Your task to perform on an android device: turn off picture-in-picture Image 0: 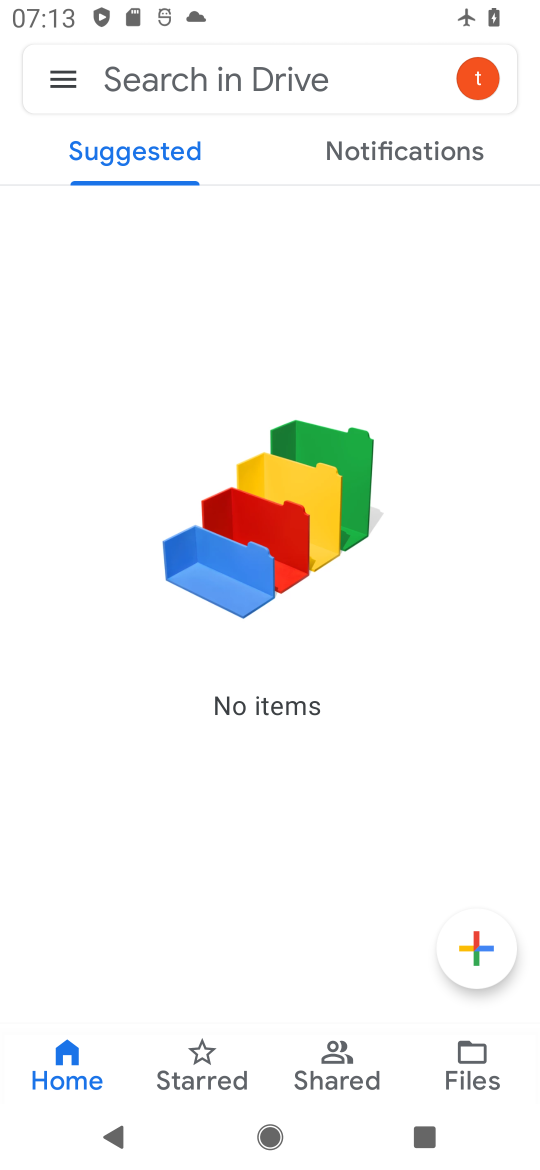
Step 0: press home button
Your task to perform on an android device: turn off picture-in-picture Image 1: 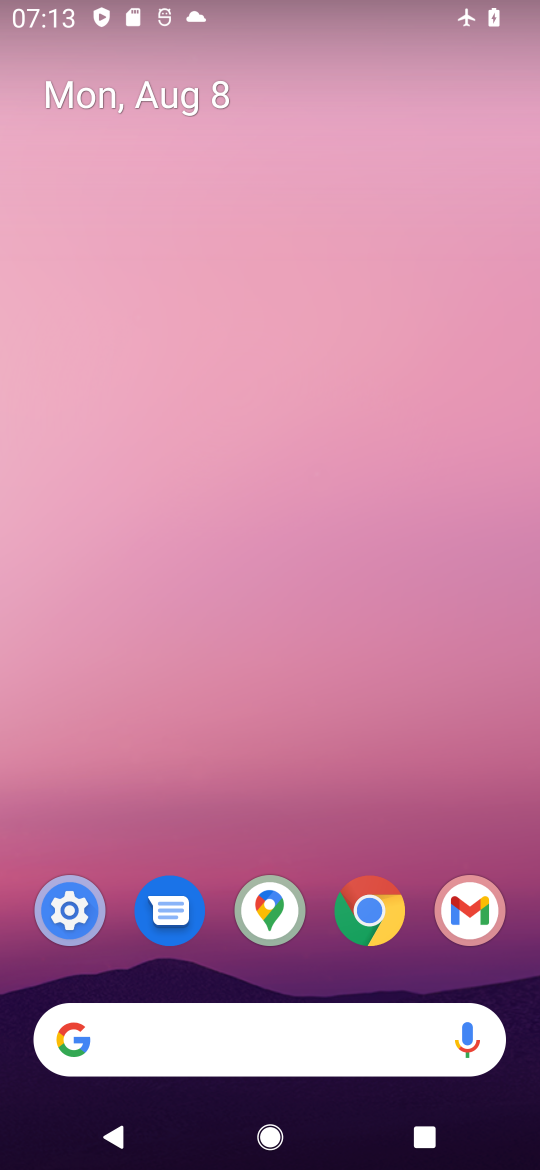
Step 1: click (369, 913)
Your task to perform on an android device: turn off picture-in-picture Image 2: 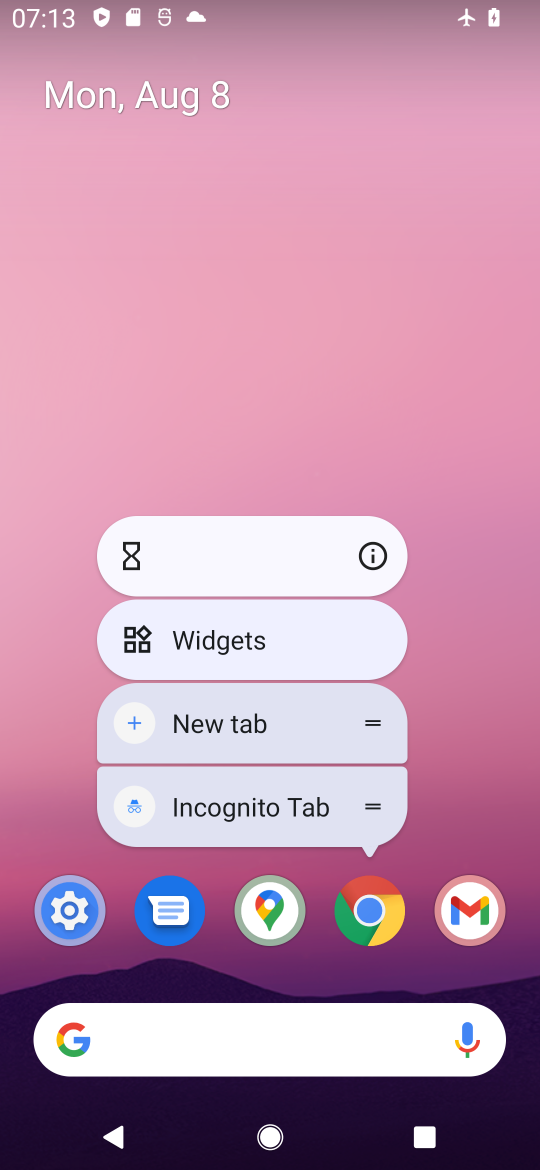
Step 2: click (367, 553)
Your task to perform on an android device: turn off picture-in-picture Image 3: 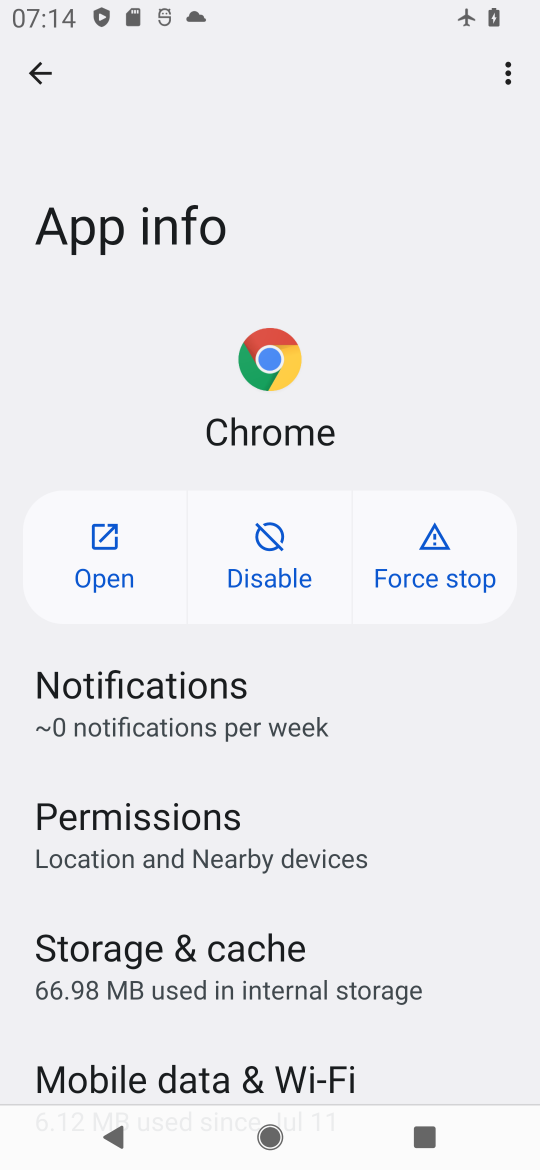
Step 3: drag from (228, 895) to (330, 736)
Your task to perform on an android device: turn off picture-in-picture Image 4: 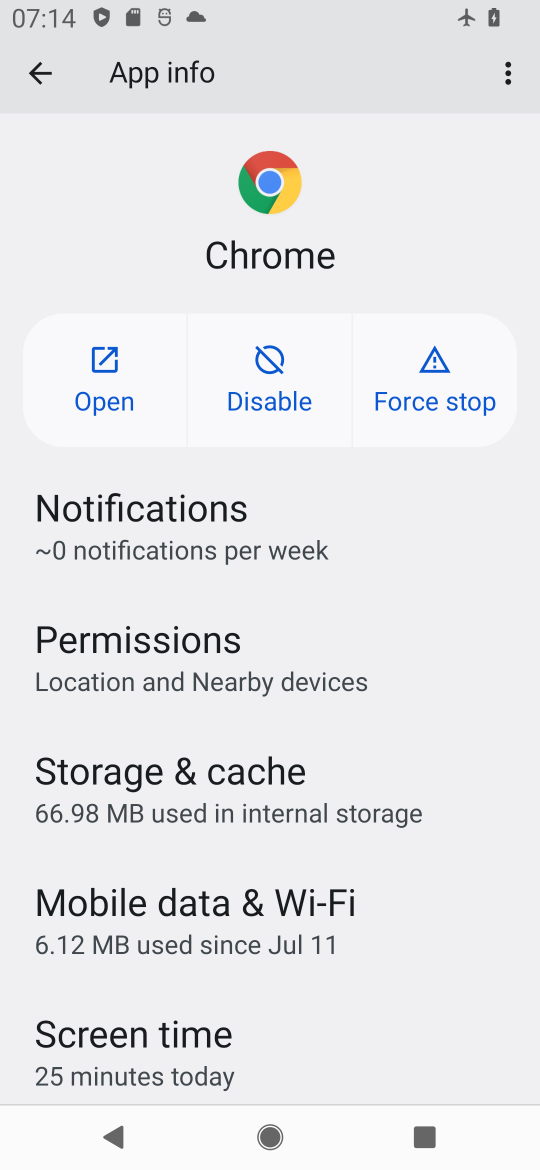
Step 4: drag from (205, 975) to (360, 791)
Your task to perform on an android device: turn off picture-in-picture Image 5: 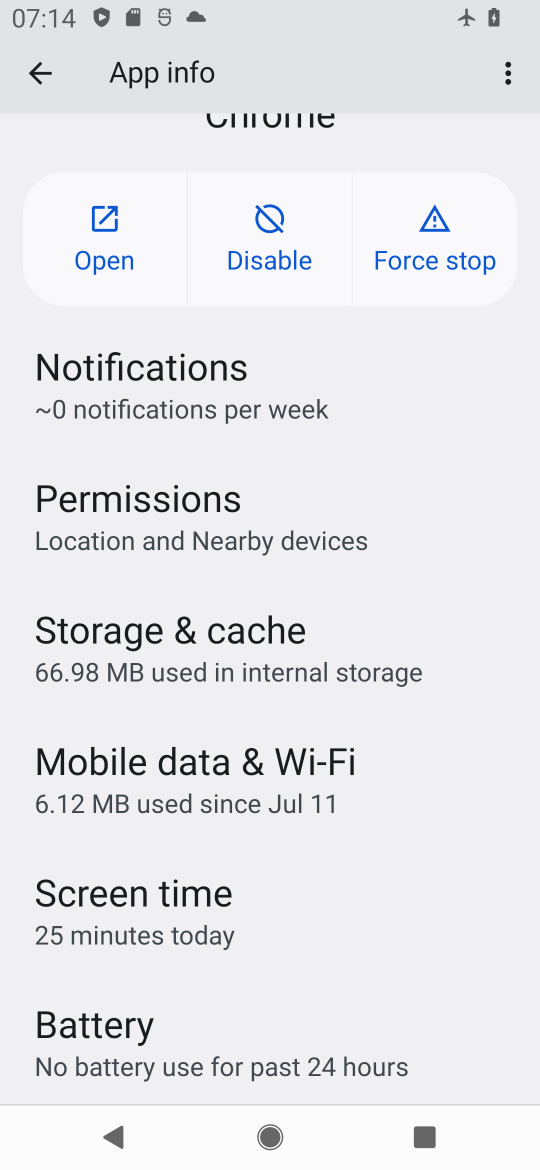
Step 5: drag from (245, 916) to (345, 707)
Your task to perform on an android device: turn off picture-in-picture Image 6: 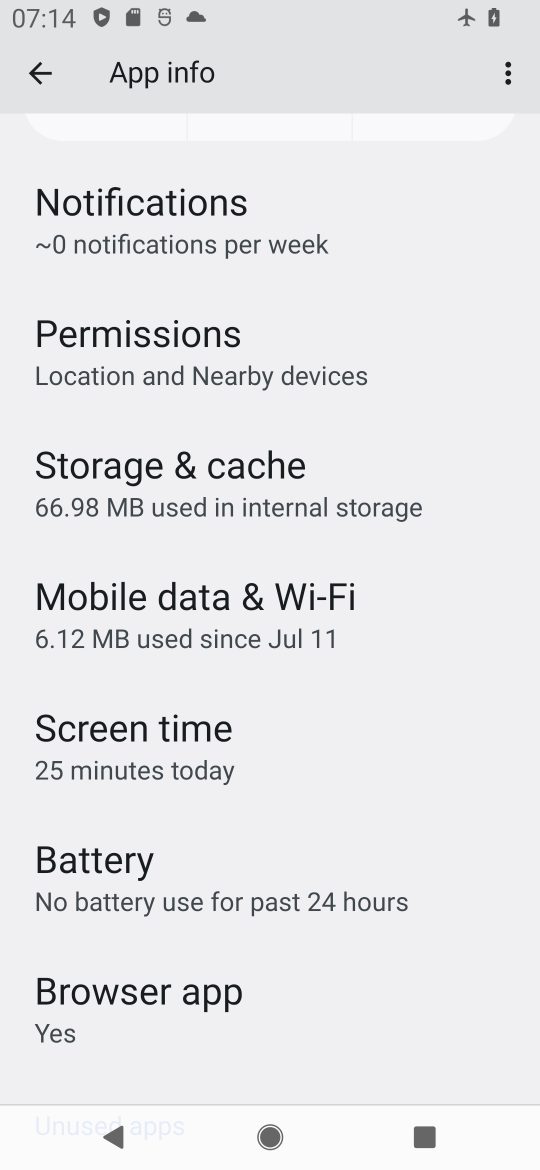
Step 6: drag from (253, 964) to (352, 814)
Your task to perform on an android device: turn off picture-in-picture Image 7: 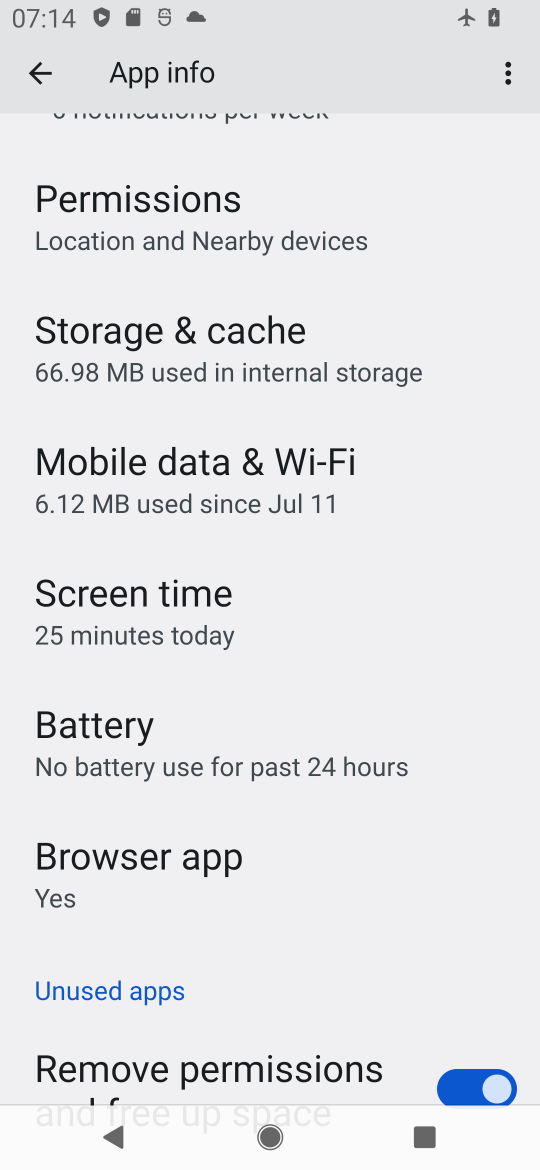
Step 7: drag from (247, 958) to (326, 715)
Your task to perform on an android device: turn off picture-in-picture Image 8: 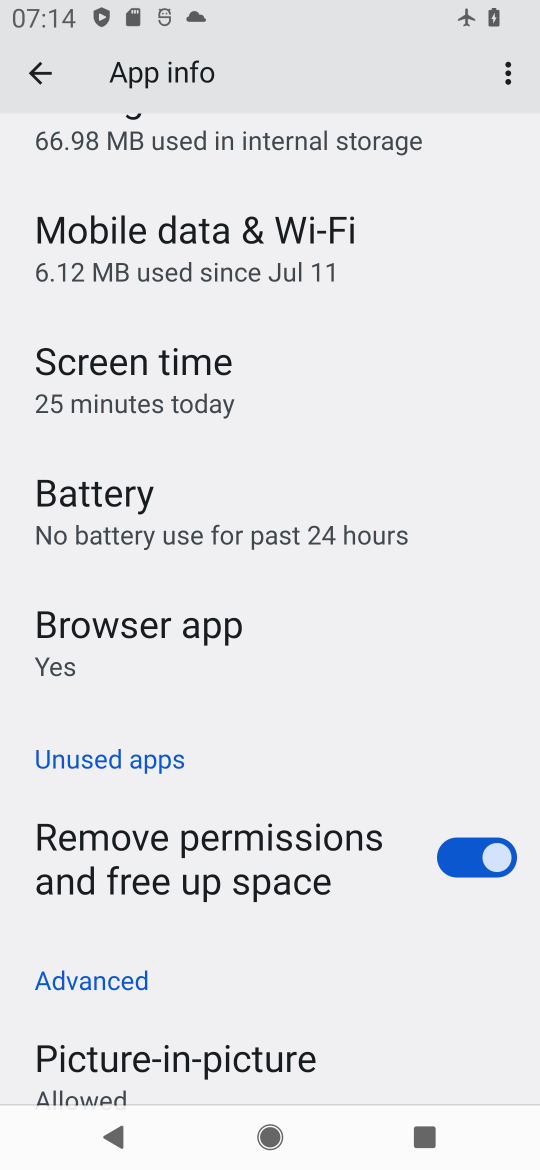
Step 8: drag from (226, 985) to (298, 711)
Your task to perform on an android device: turn off picture-in-picture Image 9: 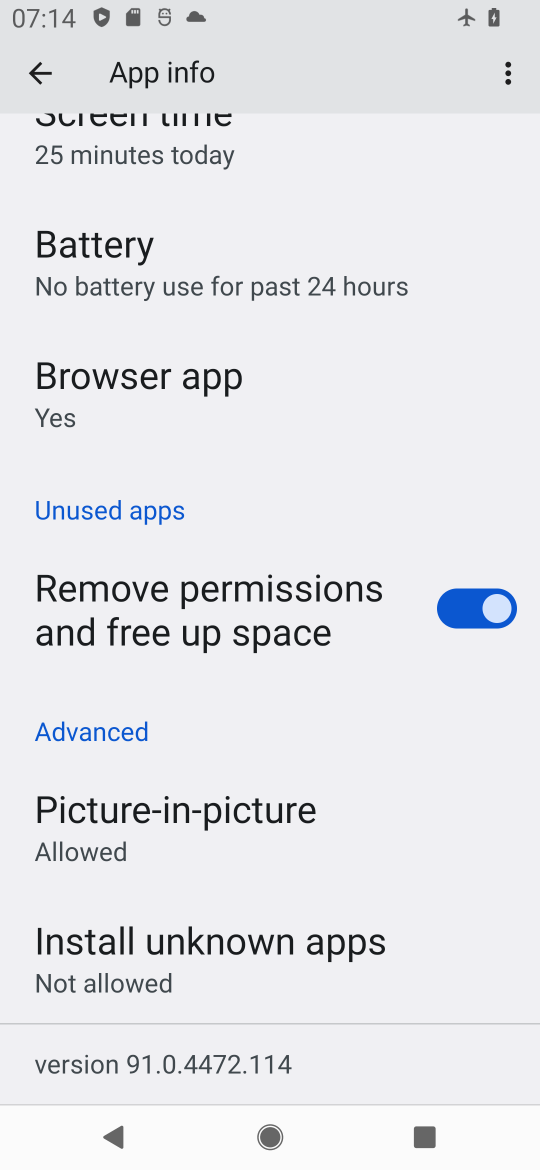
Step 9: click (236, 806)
Your task to perform on an android device: turn off picture-in-picture Image 10: 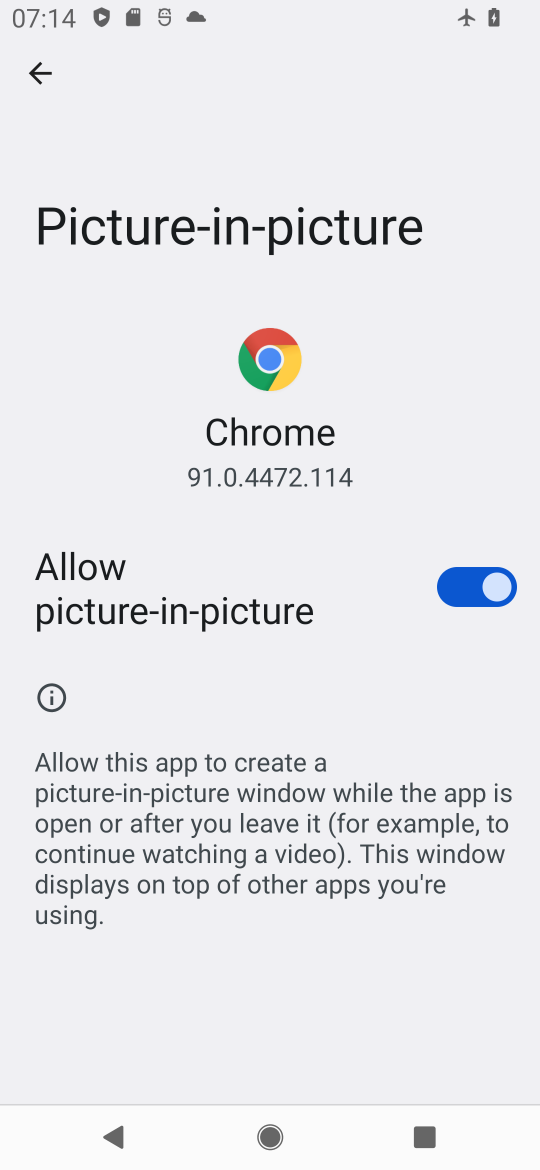
Step 10: click (448, 586)
Your task to perform on an android device: turn off picture-in-picture Image 11: 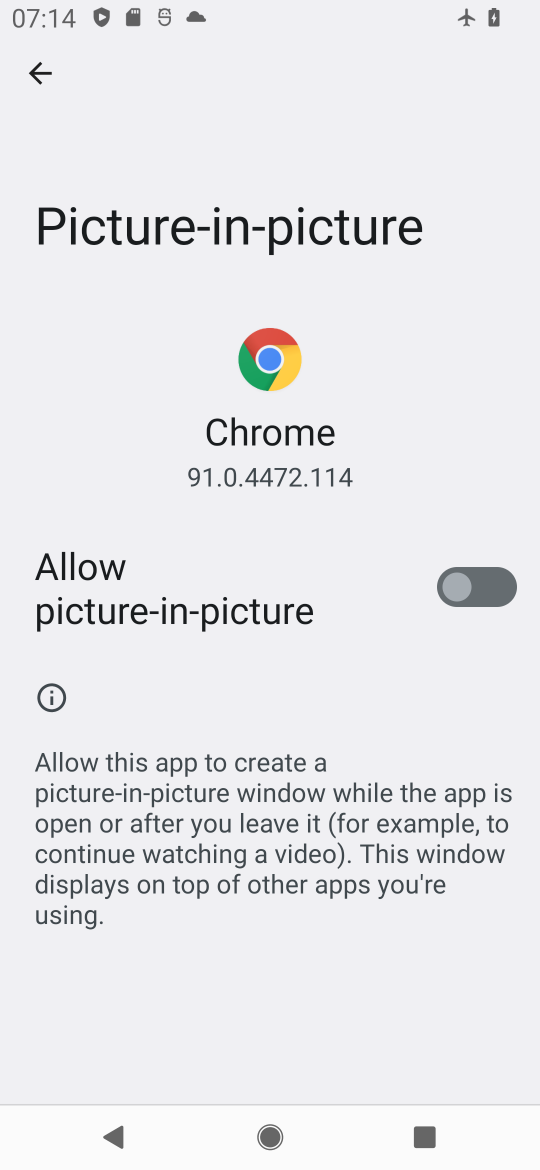
Step 11: task complete